Your task to perform on an android device: turn on bluetooth scan Image 0: 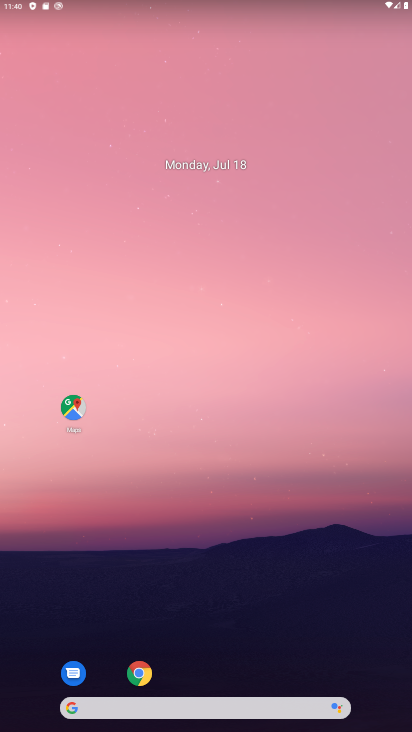
Step 0: drag from (247, 679) to (228, 186)
Your task to perform on an android device: turn on bluetooth scan Image 1: 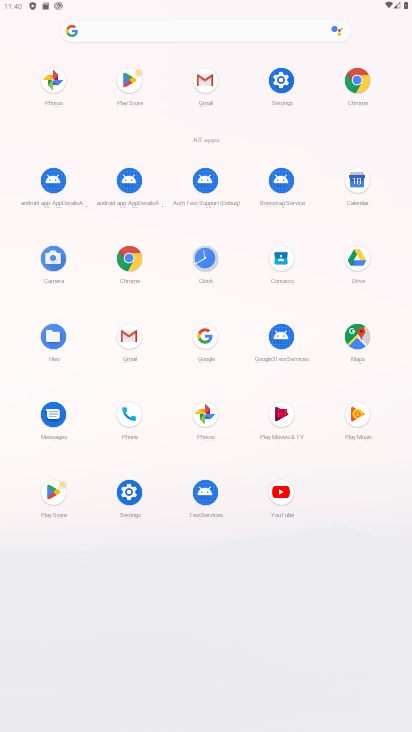
Step 1: click (274, 77)
Your task to perform on an android device: turn on bluetooth scan Image 2: 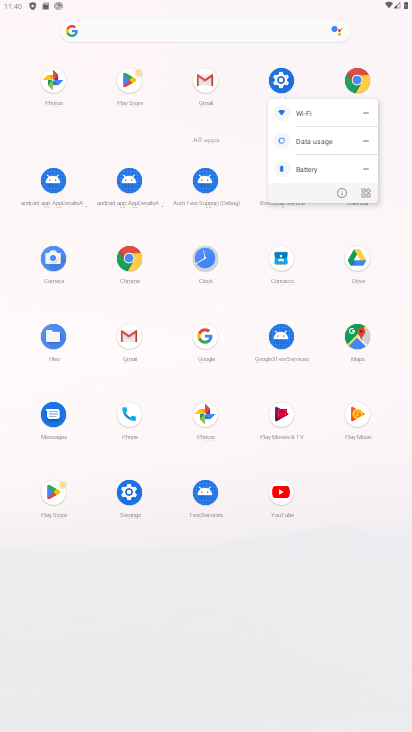
Step 2: click (283, 76)
Your task to perform on an android device: turn on bluetooth scan Image 3: 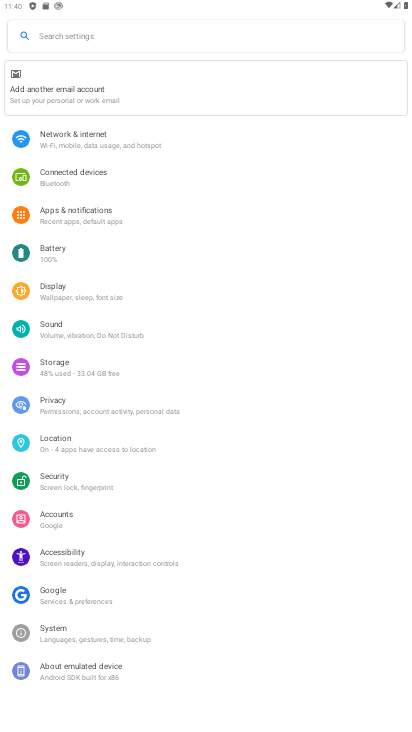
Step 3: click (98, 437)
Your task to perform on an android device: turn on bluetooth scan Image 4: 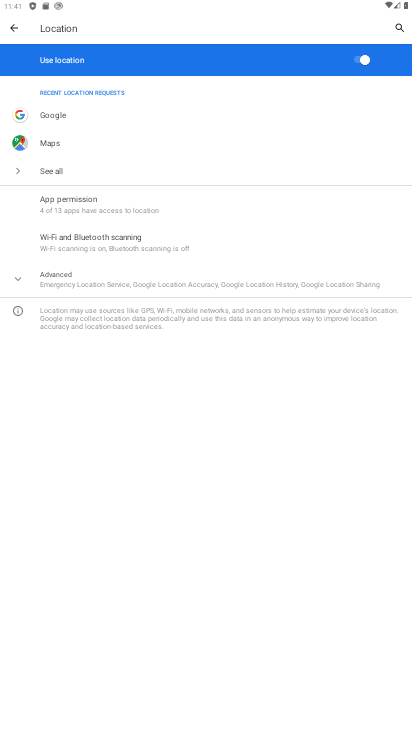
Step 4: click (197, 243)
Your task to perform on an android device: turn on bluetooth scan Image 5: 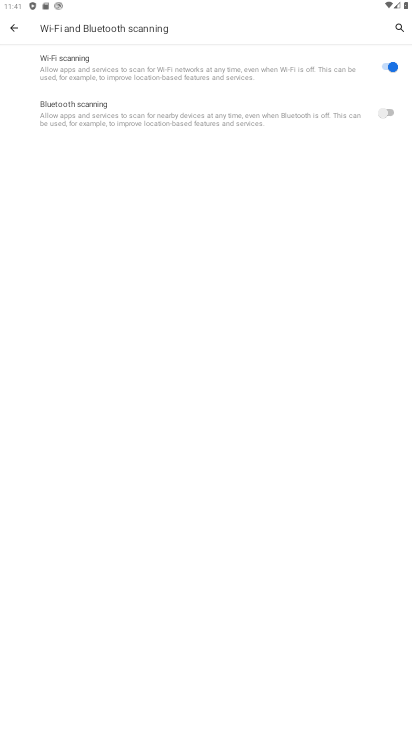
Step 5: click (381, 111)
Your task to perform on an android device: turn on bluetooth scan Image 6: 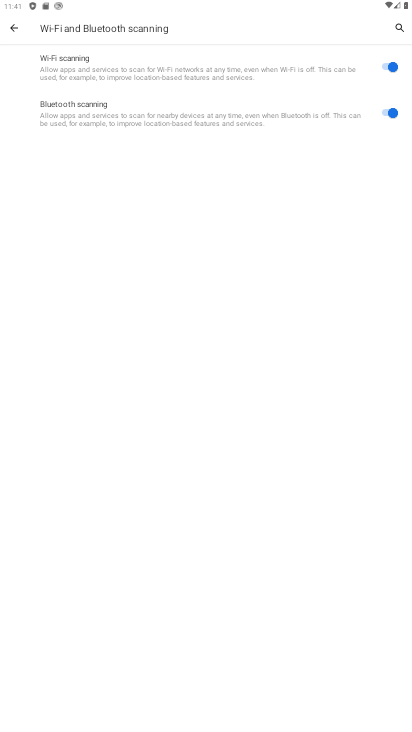
Step 6: task complete